Your task to perform on an android device: check battery use Image 0: 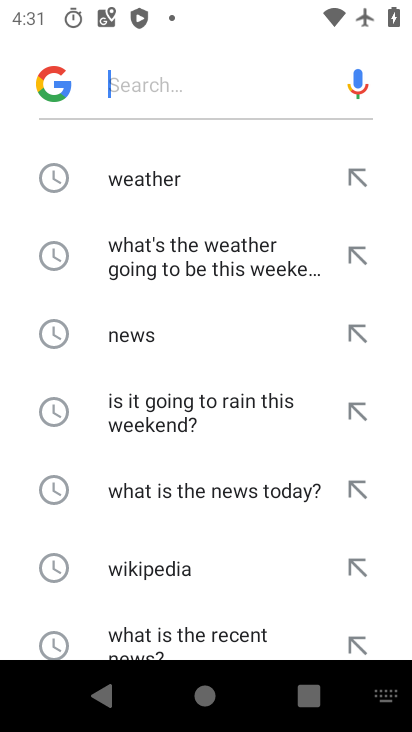
Step 0: press home button
Your task to perform on an android device: check battery use Image 1: 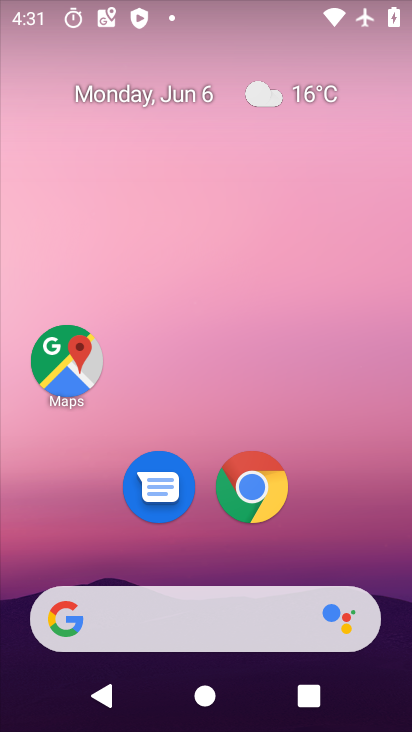
Step 1: drag from (306, 441) to (273, 64)
Your task to perform on an android device: check battery use Image 2: 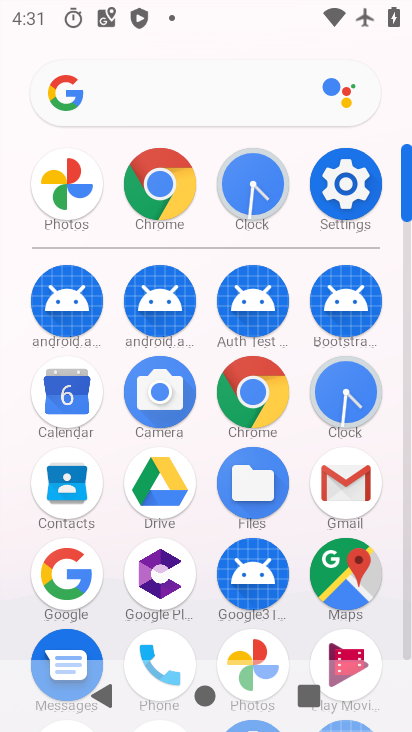
Step 2: click (340, 200)
Your task to perform on an android device: check battery use Image 3: 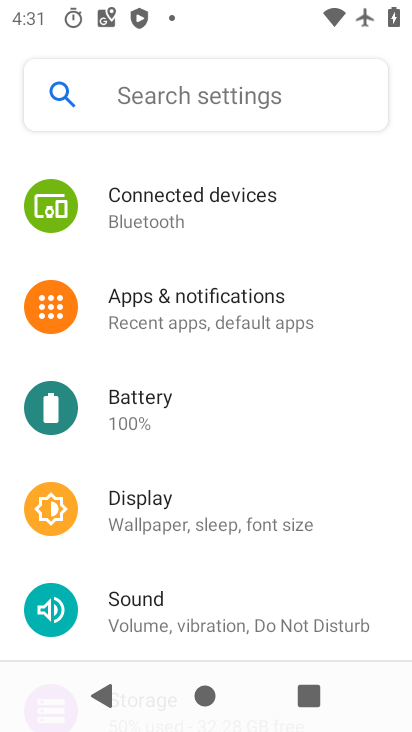
Step 3: drag from (288, 510) to (300, 144)
Your task to perform on an android device: check battery use Image 4: 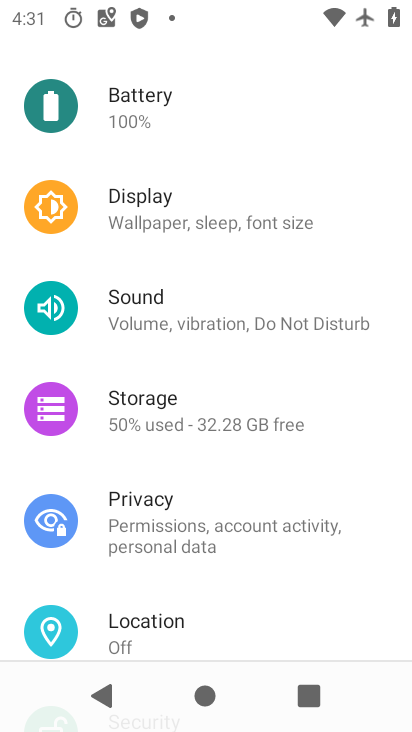
Step 4: drag from (262, 534) to (232, 719)
Your task to perform on an android device: check battery use Image 5: 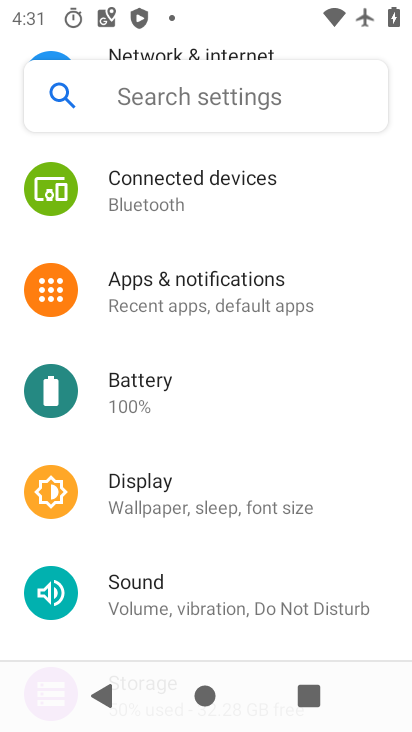
Step 5: drag from (231, 205) to (200, 348)
Your task to perform on an android device: check battery use Image 6: 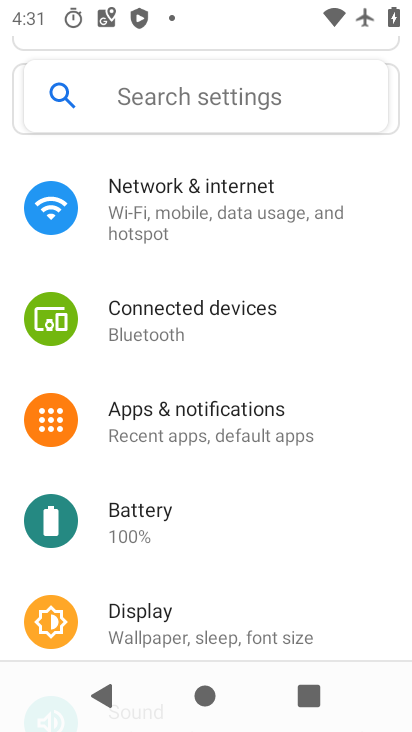
Step 6: click (116, 543)
Your task to perform on an android device: check battery use Image 7: 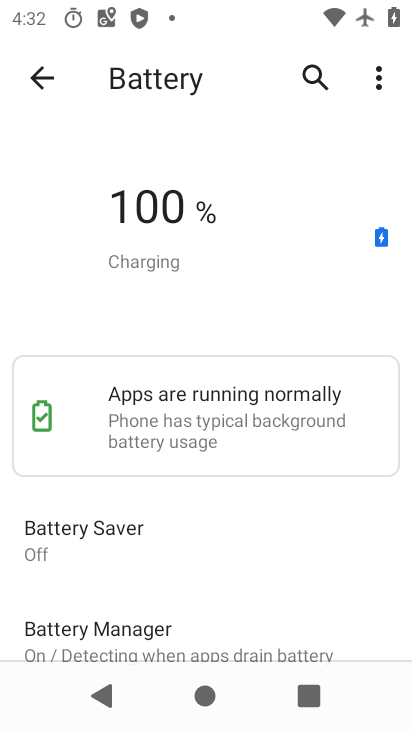
Step 7: click (383, 73)
Your task to perform on an android device: check battery use Image 8: 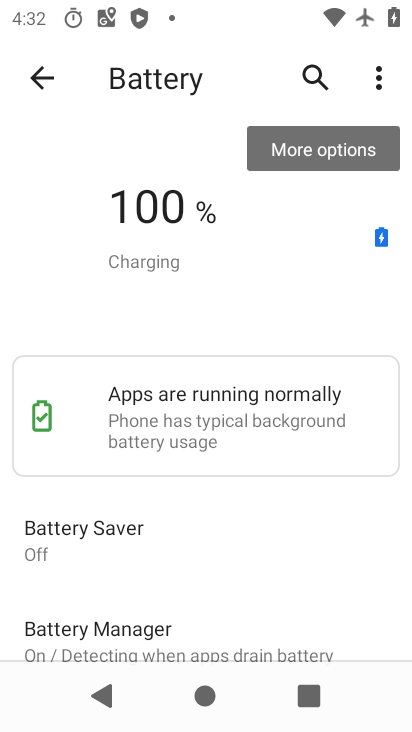
Step 8: click (383, 73)
Your task to perform on an android device: check battery use Image 9: 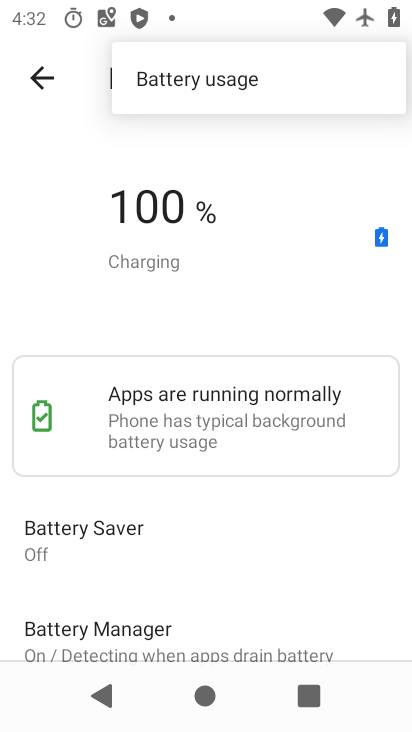
Step 9: click (309, 82)
Your task to perform on an android device: check battery use Image 10: 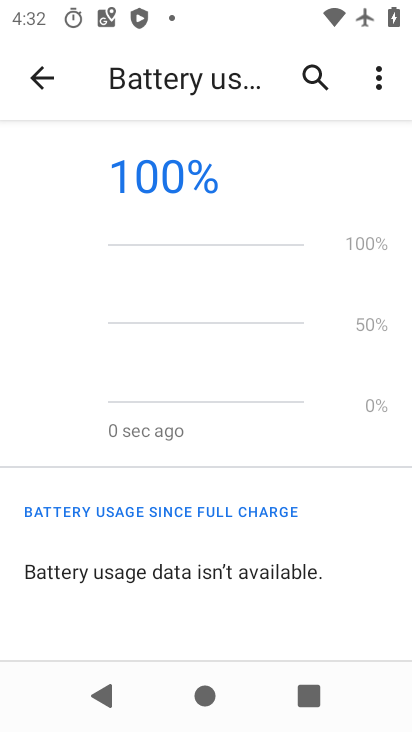
Step 10: task complete